Your task to perform on an android device: turn pop-ups on in chrome Image 0: 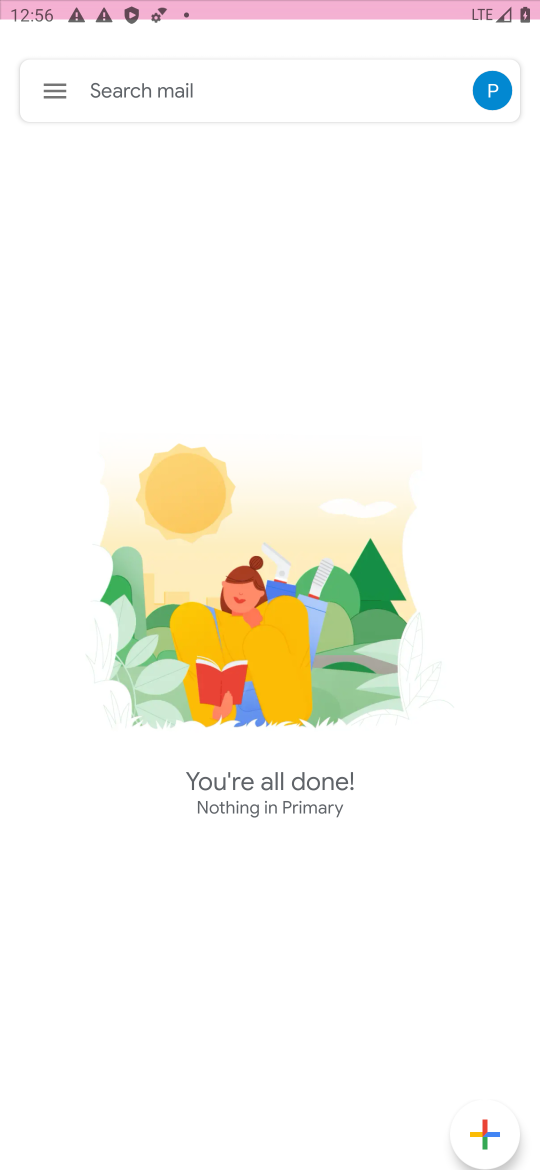
Step 0: press home button
Your task to perform on an android device: turn pop-ups on in chrome Image 1: 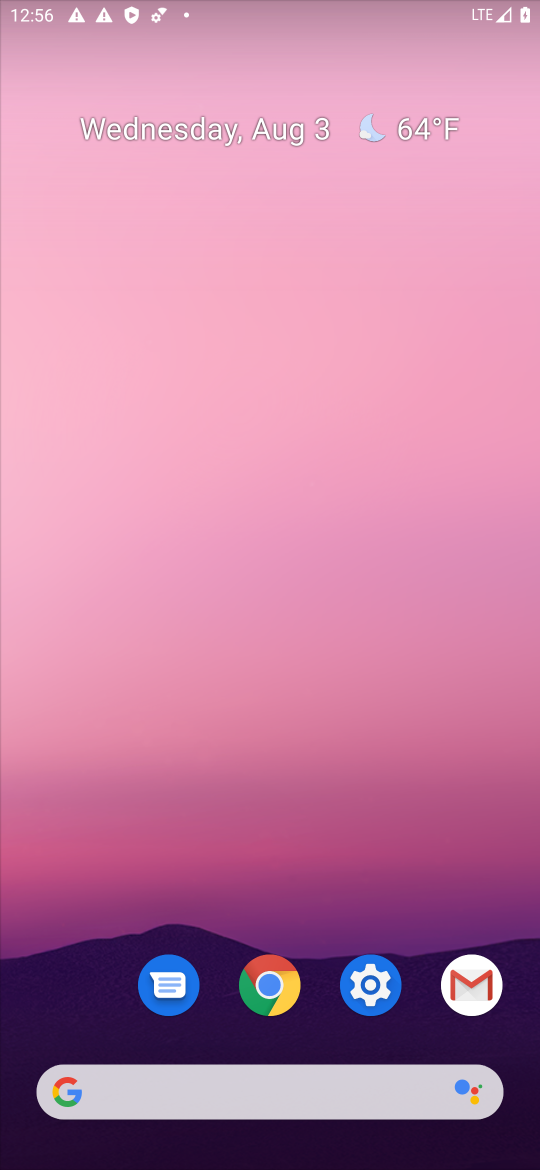
Step 1: click (264, 995)
Your task to perform on an android device: turn pop-ups on in chrome Image 2: 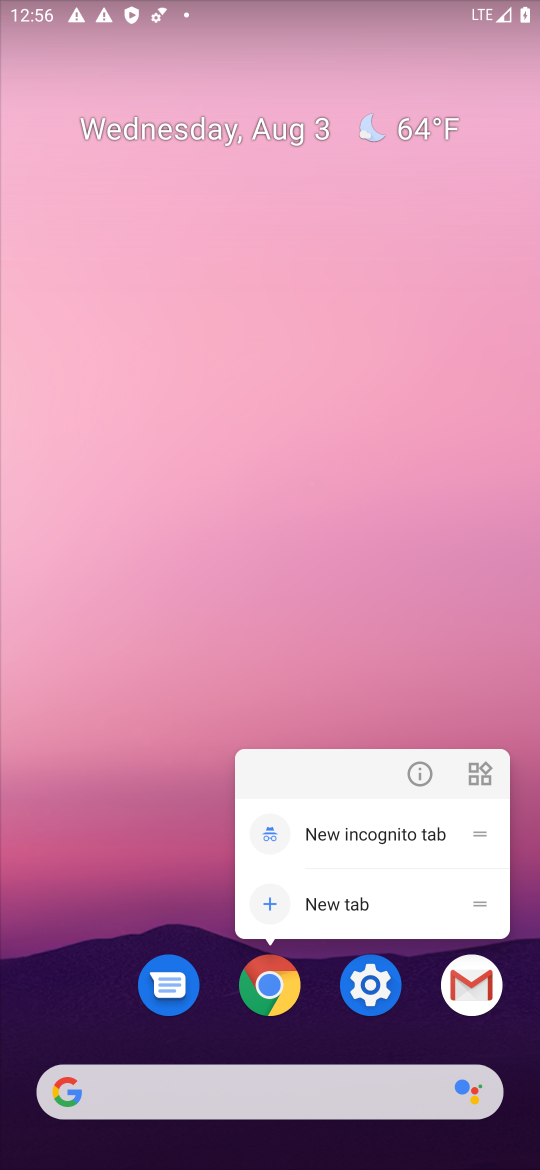
Step 2: click (276, 999)
Your task to perform on an android device: turn pop-ups on in chrome Image 3: 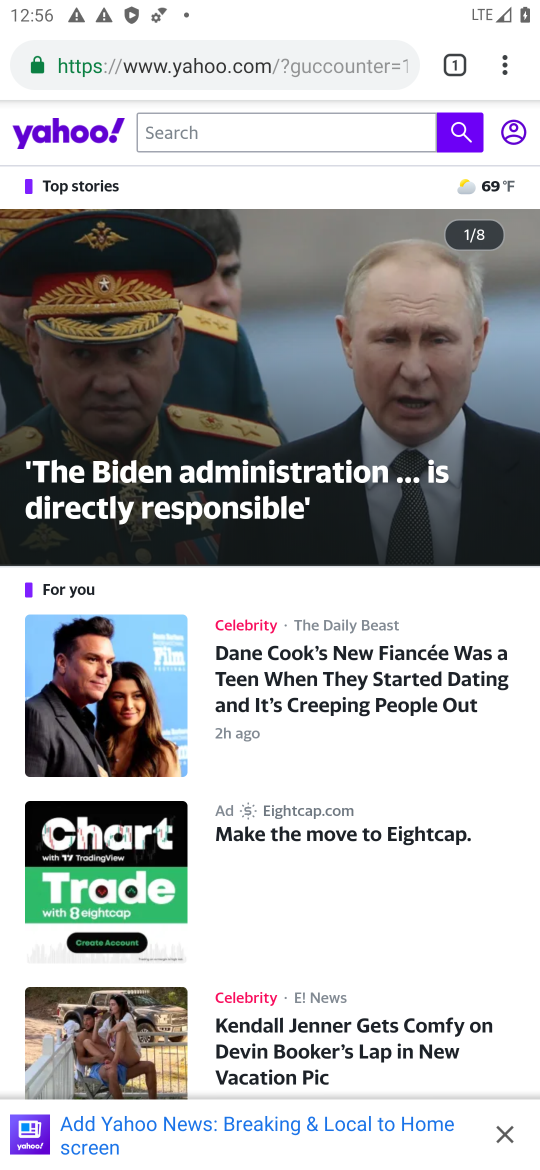
Step 3: click (505, 62)
Your task to perform on an android device: turn pop-ups on in chrome Image 4: 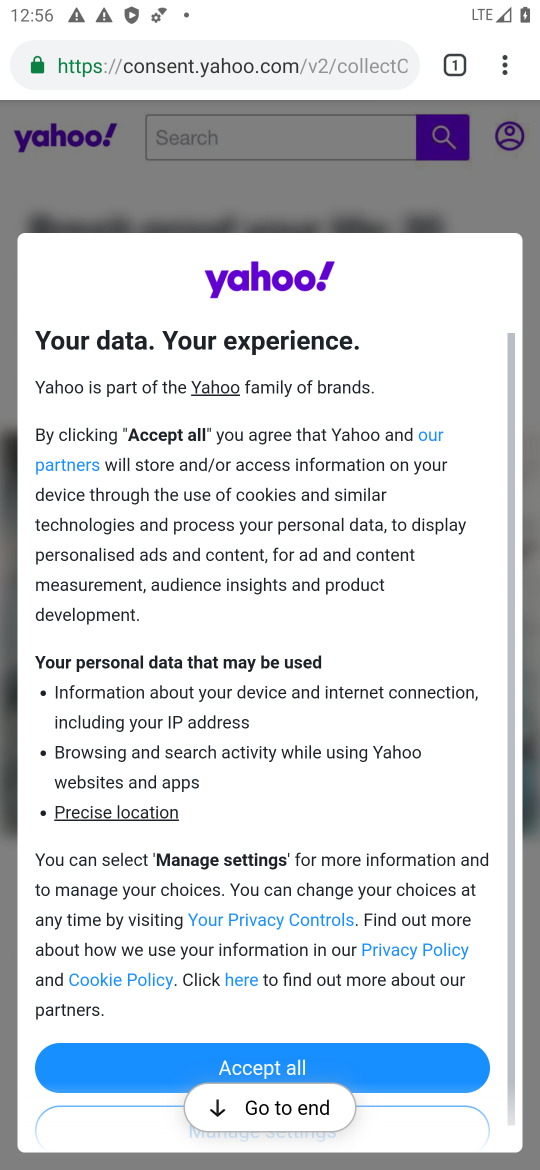
Step 4: click (507, 76)
Your task to perform on an android device: turn pop-ups on in chrome Image 5: 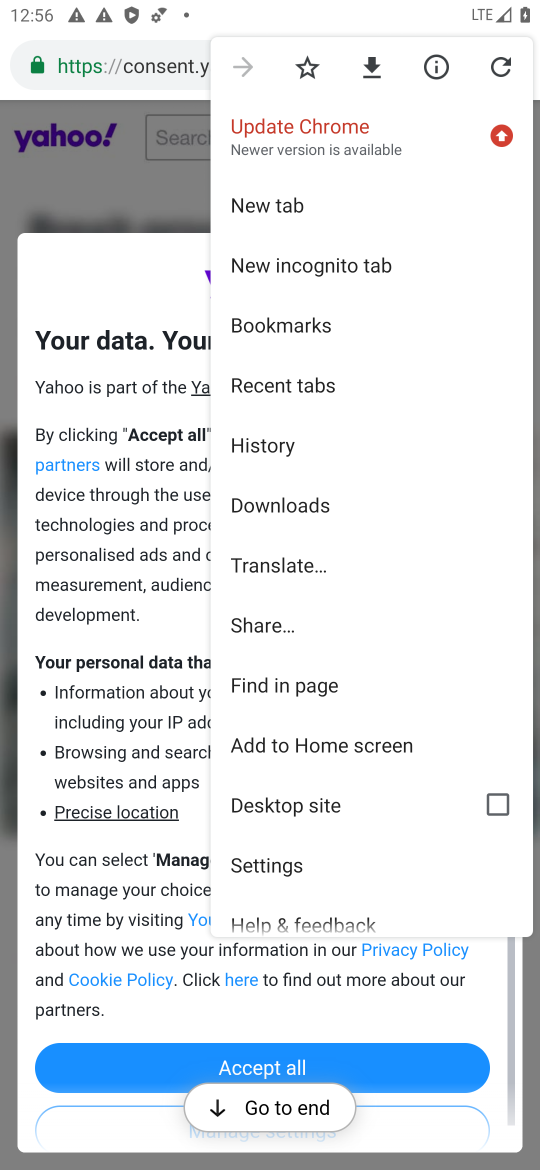
Step 5: click (268, 862)
Your task to perform on an android device: turn pop-ups on in chrome Image 6: 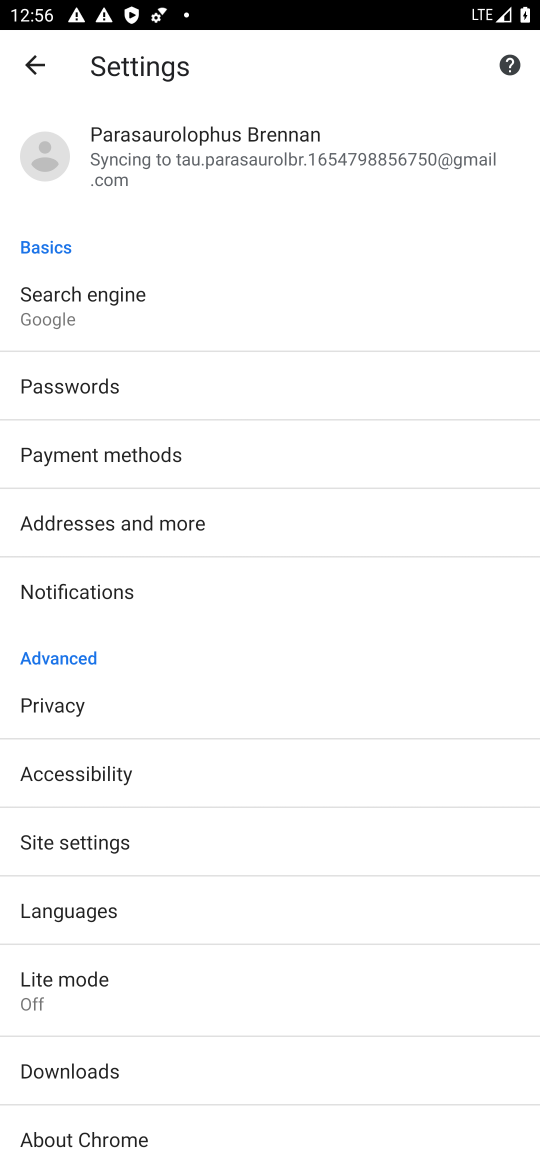
Step 6: click (74, 851)
Your task to perform on an android device: turn pop-ups on in chrome Image 7: 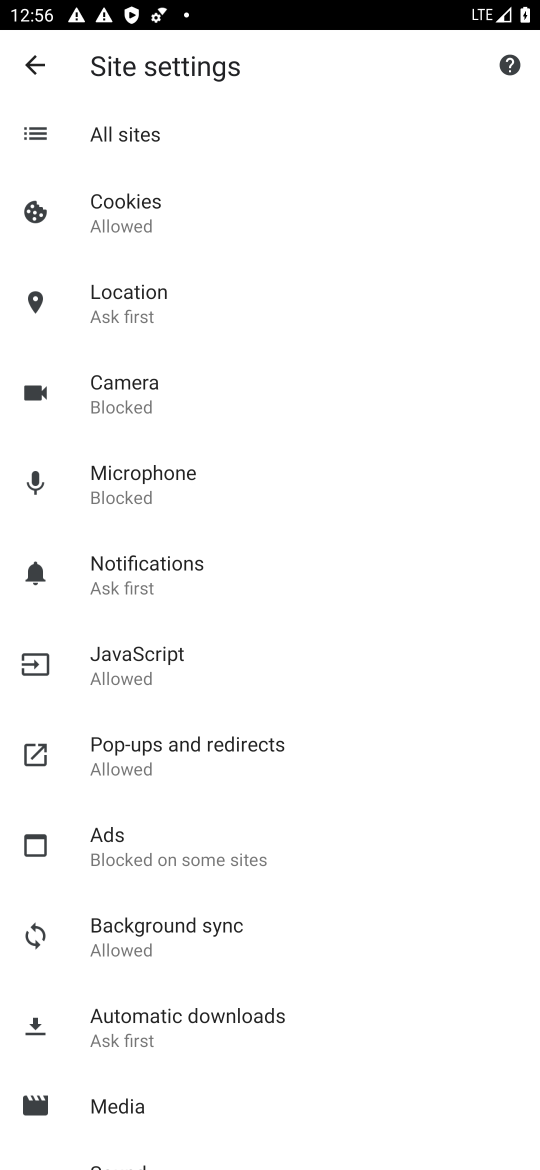
Step 7: click (190, 747)
Your task to perform on an android device: turn pop-ups on in chrome Image 8: 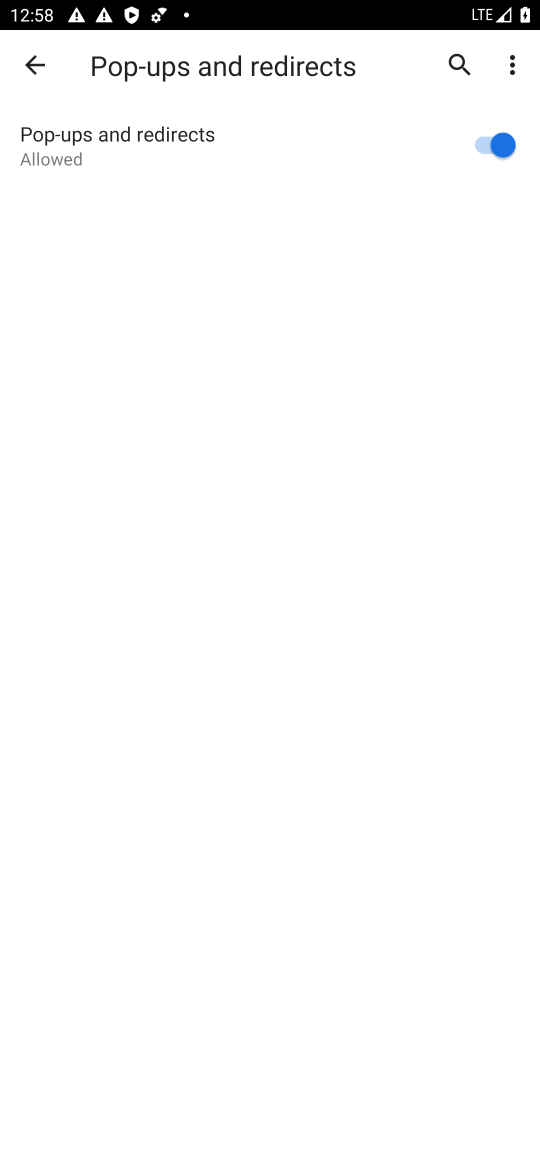
Step 8: task complete